Your task to perform on an android device: open chrome privacy settings Image 0: 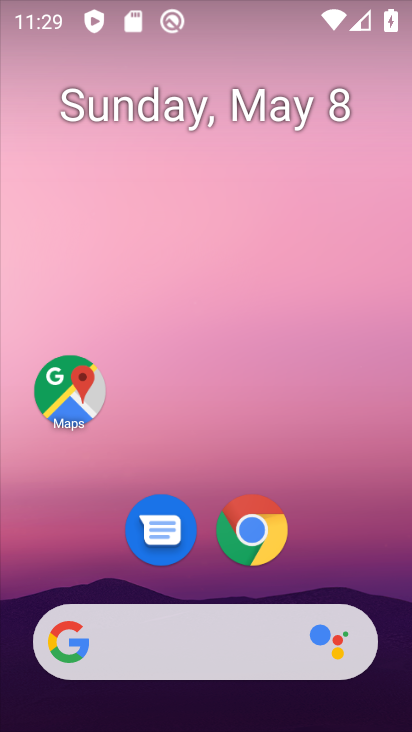
Step 0: click (258, 547)
Your task to perform on an android device: open chrome privacy settings Image 1: 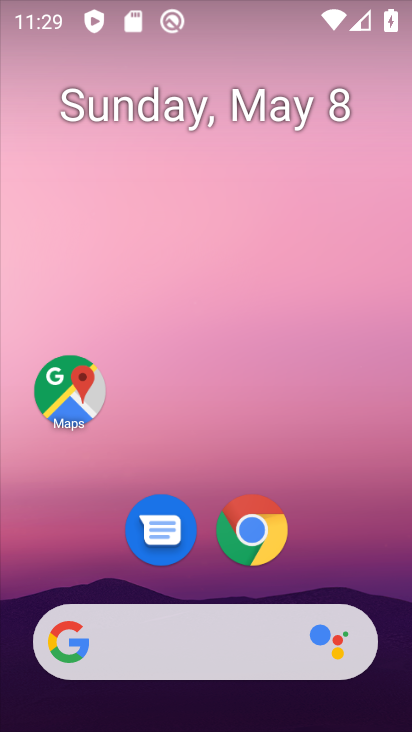
Step 1: click (258, 547)
Your task to perform on an android device: open chrome privacy settings Image 2: 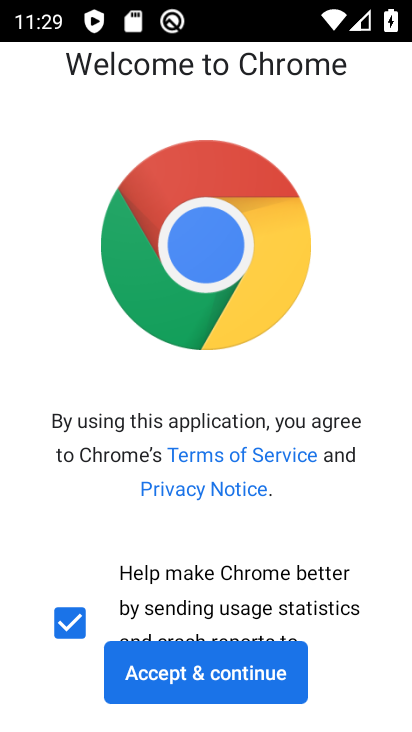
Step 2: click (224, 660)
Your task to perform on an android device: open chrome privacy settings Image 3: 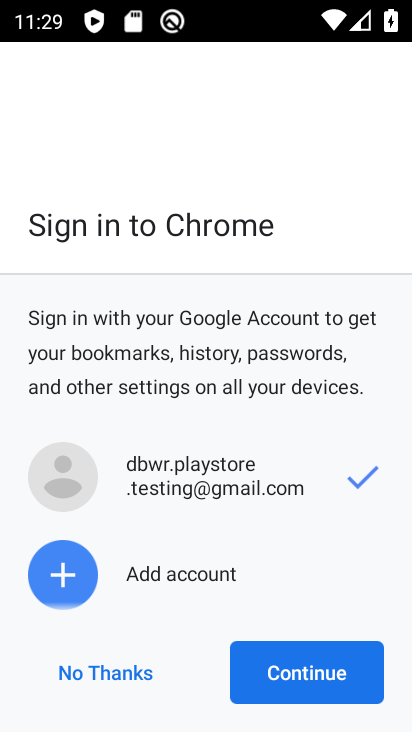
Step 3: click (294, 677)
Your task to perform on an android device: open chrome privacy settings Image 4: 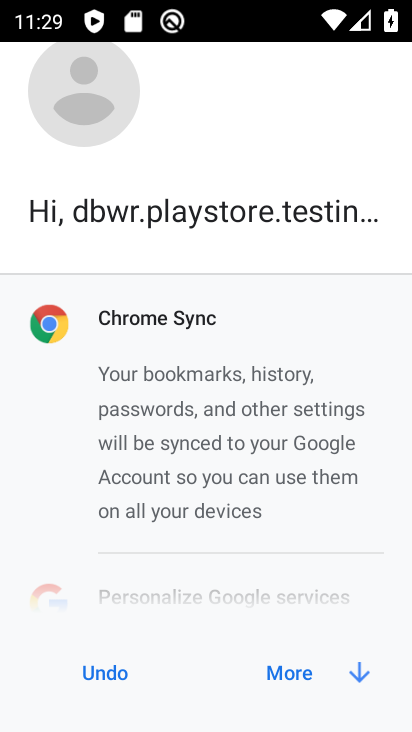
Step 4: click (294, 677)
Your task to perform on an android device: open chrome privacy settings Image 5: 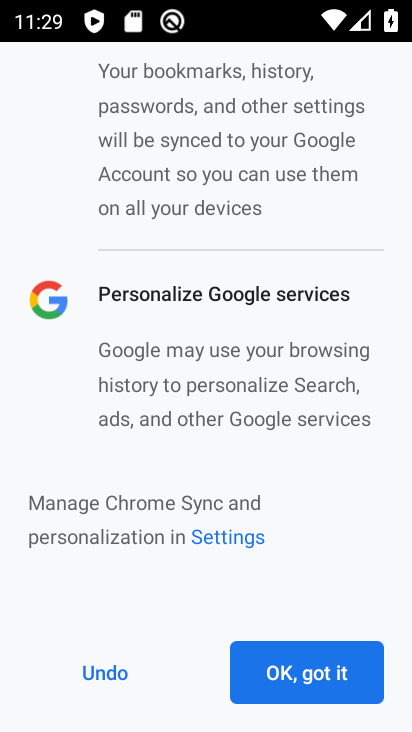
Step 5: click (294, 677)
Your task to perform on an android device: open chrome privacy settings Image 6: 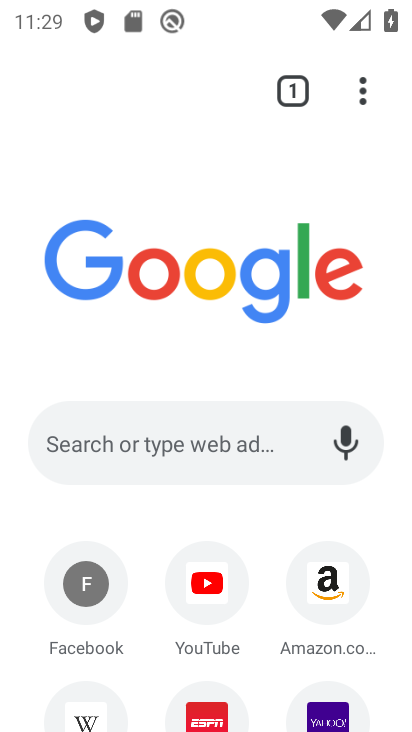
Step 6: drag from (363, 86) to (220, 557)
Your task to perform on an android device: open chrome privacy settings Image 7: 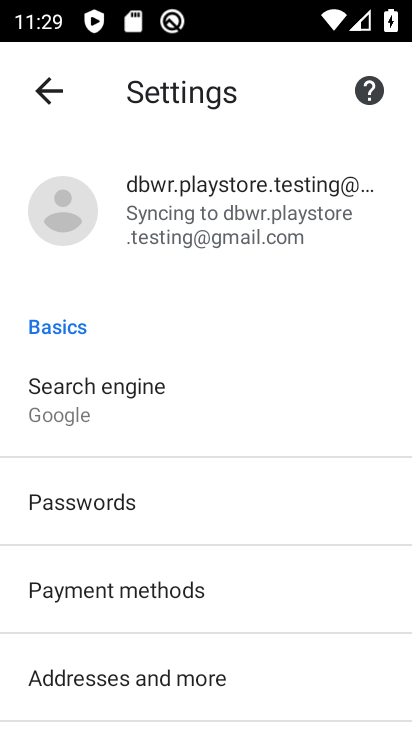
Step 7: drag from (205, 630) to (259, 235)
Your task to perform on an android device: open chrome privacy settings Image 8: 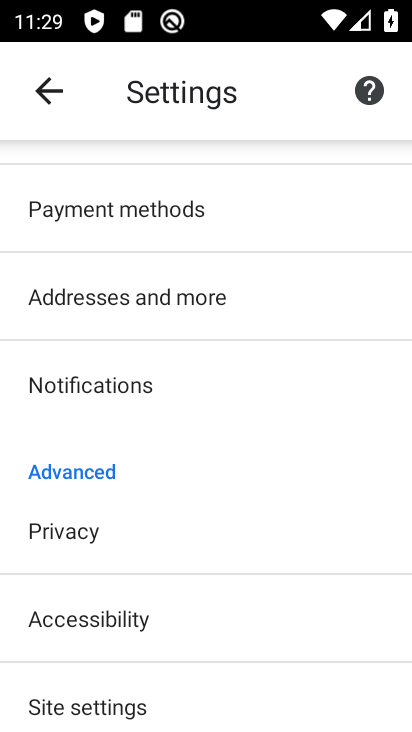
Step 8: click (227, 545)
Your task to perform on an android device: open chrome privacy settings Image 9: 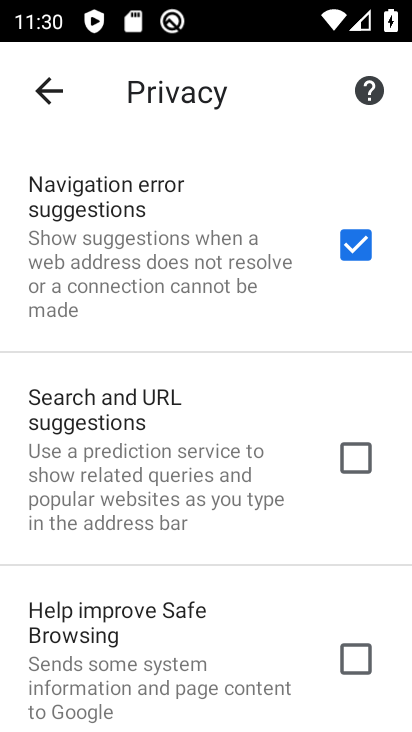
Step 9: task complete